Your task to perform on an android device: Search for "logitech g pro" on ebay.com, select the first entry, and add it to the cart. Image 0: 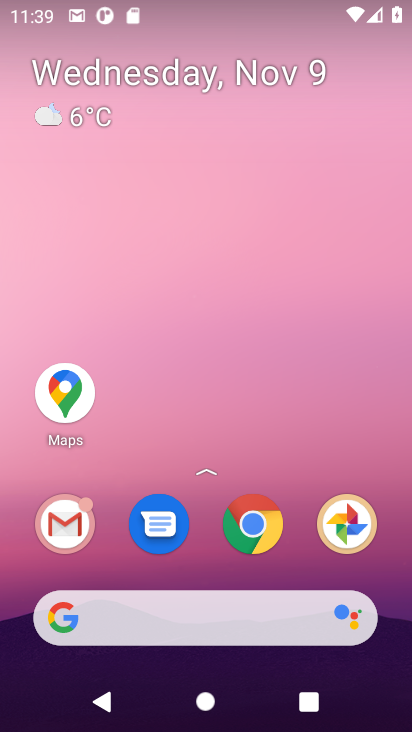
Step 0: click (198, 623)
Your task to perform on an android device: Search for "logitech g pro" on ebay.com, select the first entry, and add it to the cart. Image 1: 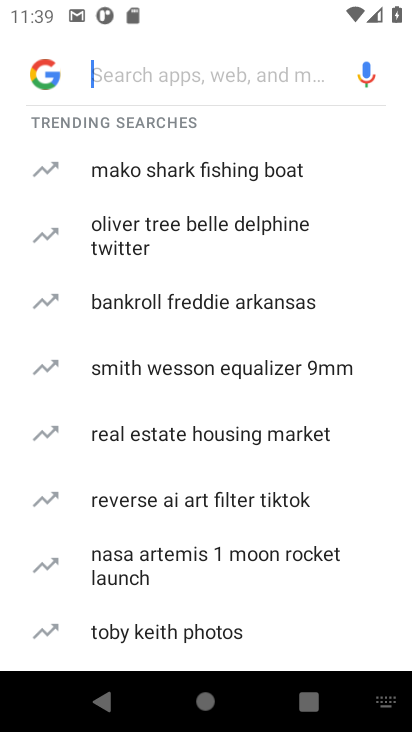
Step 1: type "logitech g pro on ebay"
Your task to perform on an android device: Search for "logitech g pro" on ebay.com, select the first entry, and add it to the cart. Image 2: 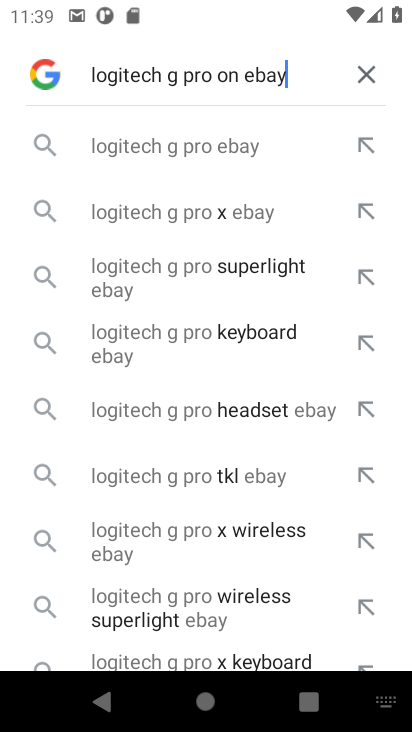
Step 2: click (192, 150)
Your task to perform on an android device: Search for "logitech g pro" on ebay.com, select the first entry, and add it to the cart. Image 3: 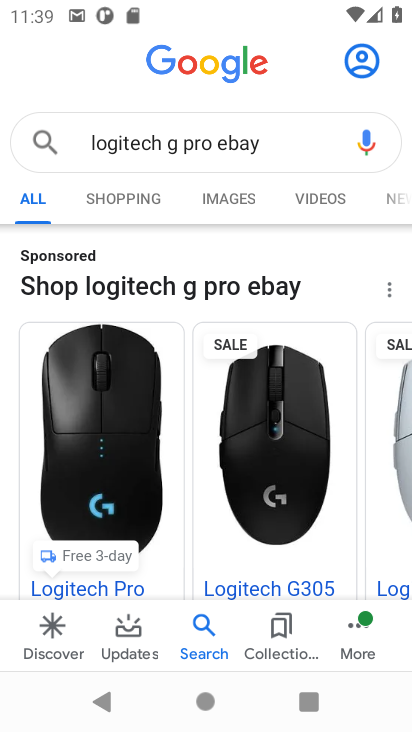
Step 3: click (70, 586)
Your task to perform on an android device: Search for "logitech g pro" on ebay.com, select the first entry, and add it to the cart. Image 4: 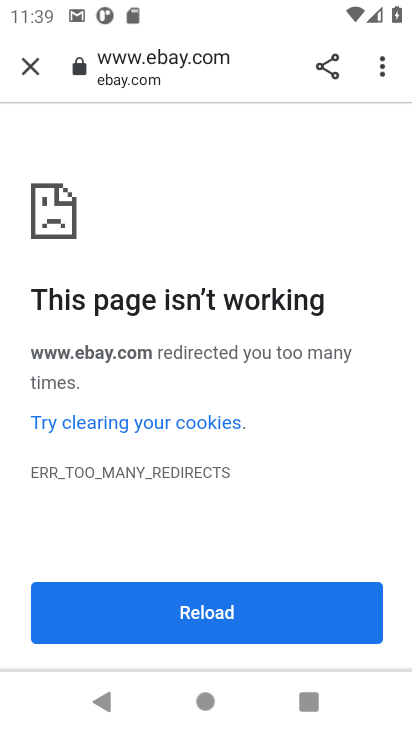
Step 4: task complete